Your task to perform on an android device: Show me popular videos on Youtube Image 0: 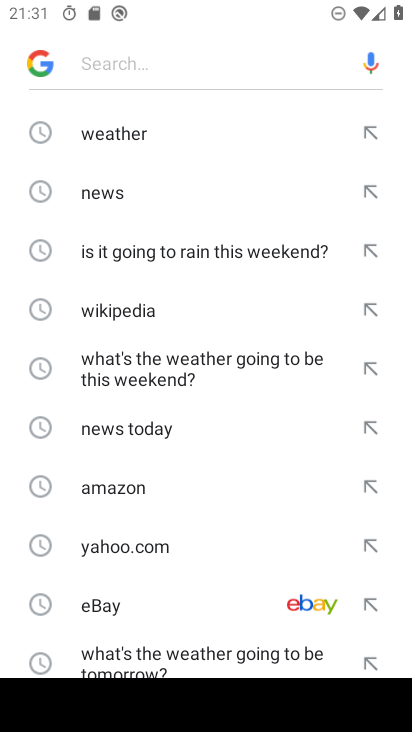
Step 0: press home button
Your task to perform on an android device: Show me popular videos on Youtube Image 1: 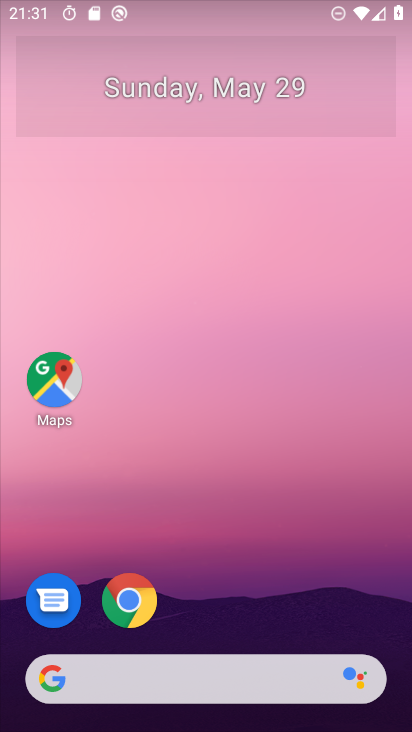
Step 1: drag from (318, 577) to (242, 150)
Your task to perform on an android device: Show me popular videos on Youtube Image 2: 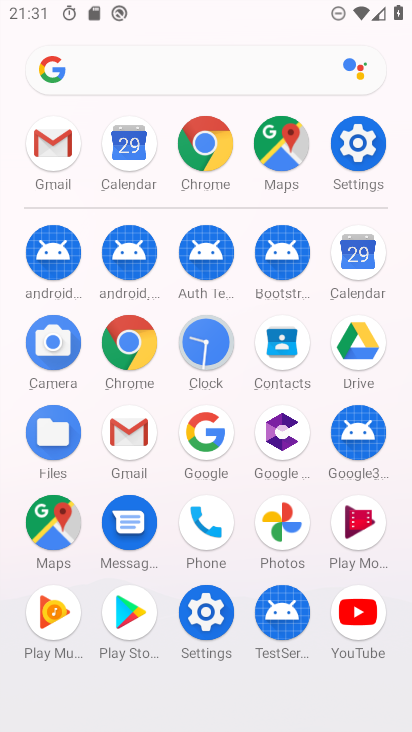
Step 2: click (379, 624)
Your task to perform on an android device: Show me popular videos on Youtube Image 3: 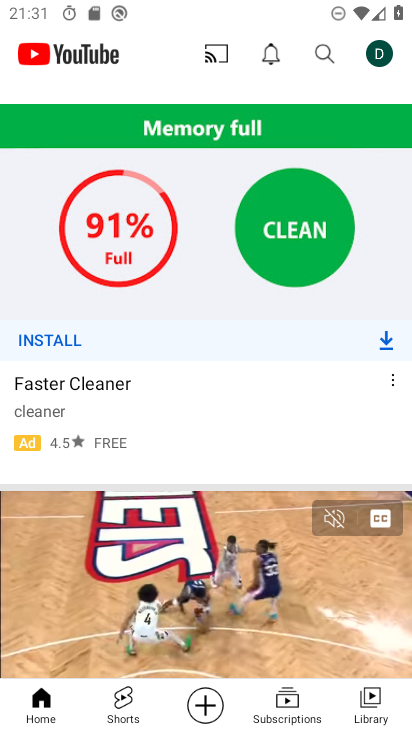
Step 3: task complete